Your task to perform on an android device: toggle airplane mode Image 0: 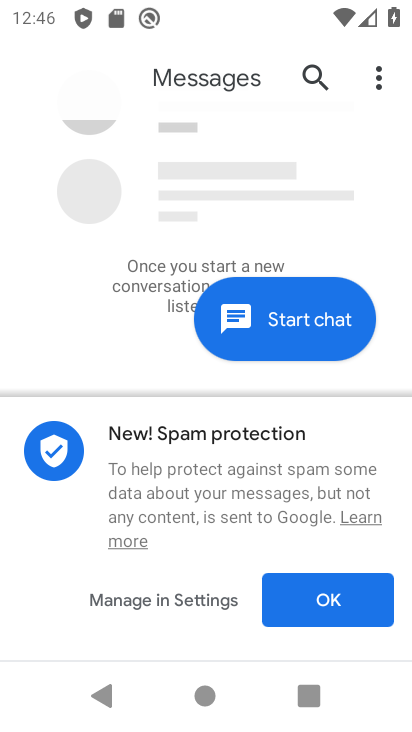
Step 0: press home button
Your task to perform on an android device: toggle airplane mode Image 1: 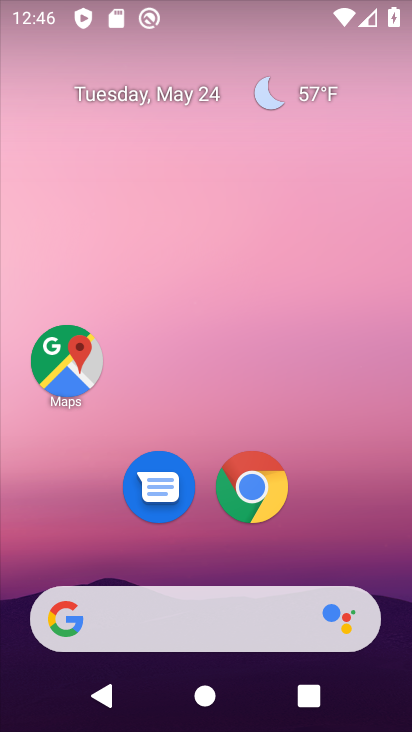
Step 1: drag from (224, 722) to (214, 97)
Your task to perform on an android device: toggle airplane mode Image 2: 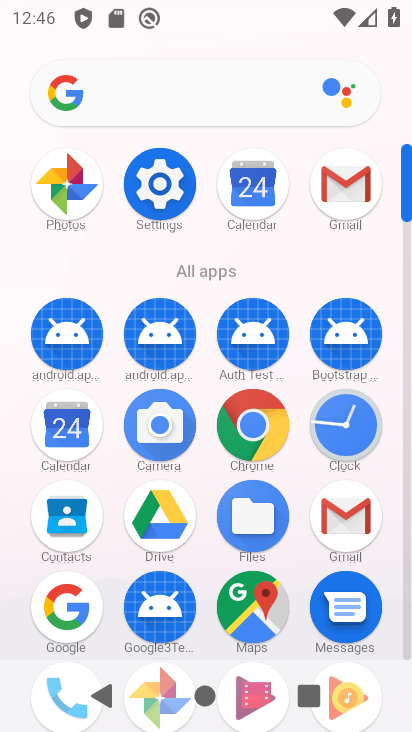
Step 2: click (158, 191)
Your task to perform on an android device: toggle airplane mode Image 3: 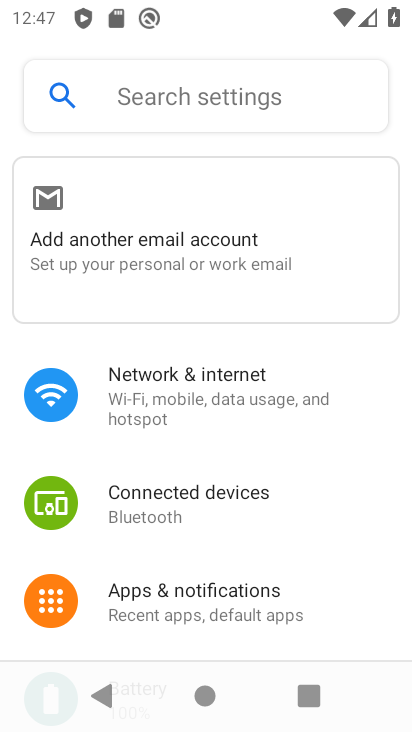
Step 3: click (137, 393)
Your task to perform on an android device: toggle airplane mode Image 4: 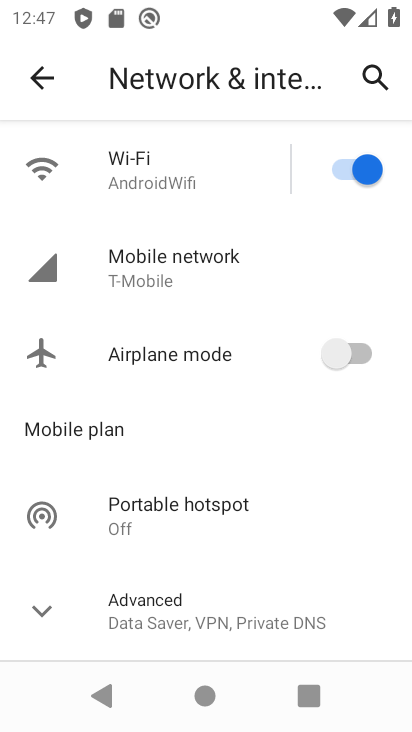
Step 4: click (356, 350)
Your task to perform on an android device: toggle airplane mode Image 5: 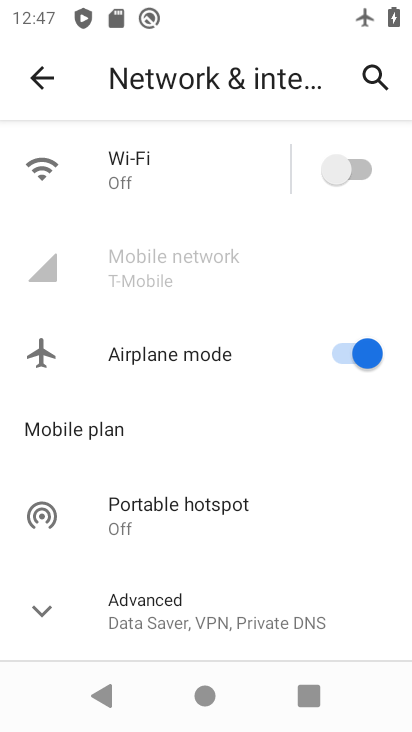
Step 5: task complete